Your task to perform on an android device: toggle sleep mode Image 0: 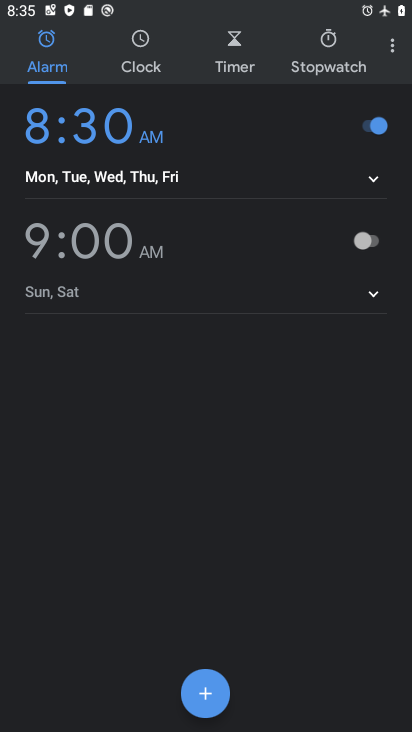
Step 0: press home button
Your task to perform on an android device: toggle sleep mode Image 1: 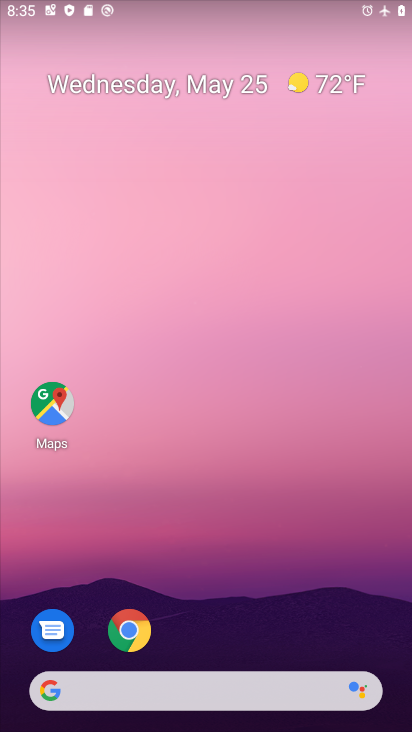
Step 1: drag from (225, 646) to (237, 238)
Your task to perform on an android device: toggle sleep mode Image 2: 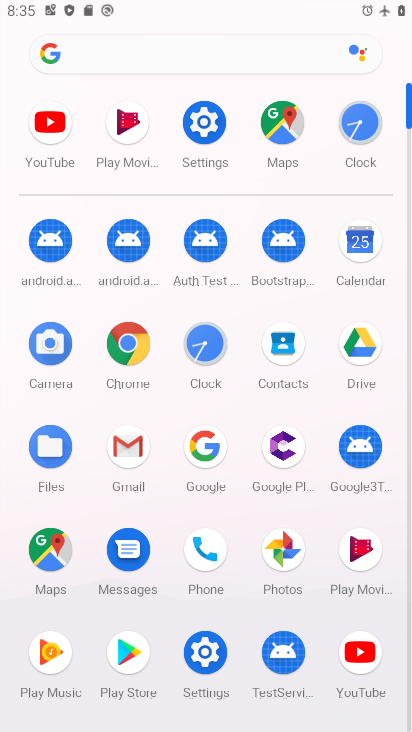
Step 2: click (211, 116)
Your task to perform on an android device: toggle sleep mode Image 3: 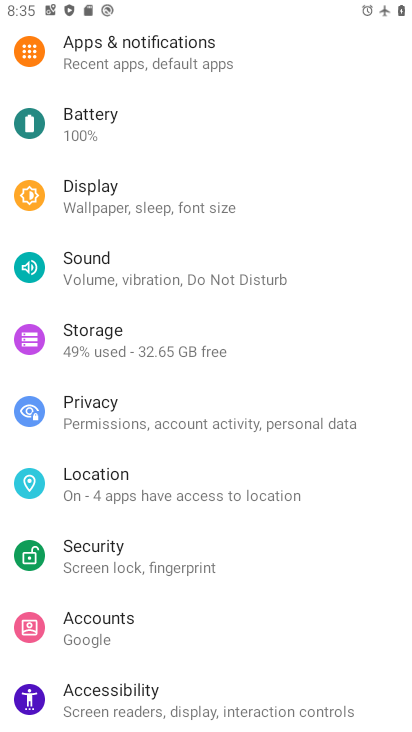
Step 3: click (184, 205)
Your task to perform on an android device: toggle sleep mode Image 4: 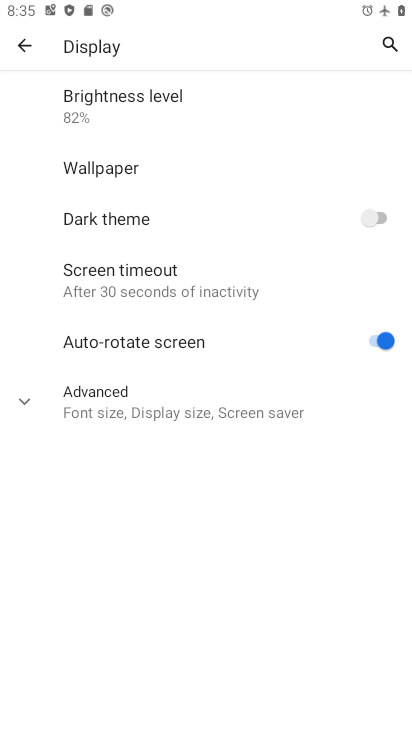
Step 4: click (203, 282)
Your task to perform on an android device: toggle sleep mode Image 5: 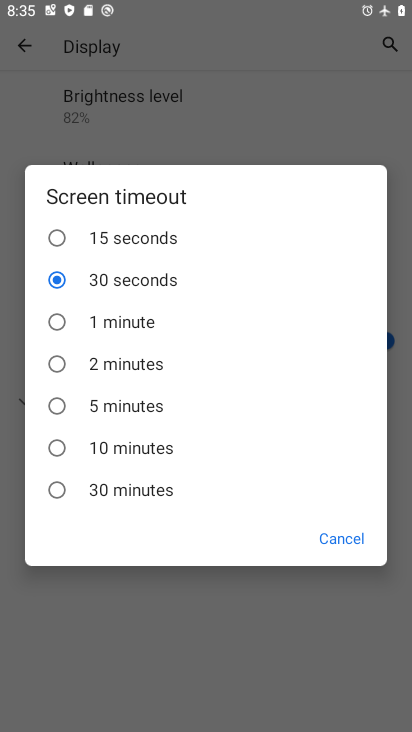
Step 5: click (128, 384)
Your task to perform on an android device: toggle sleep mode Image 6: 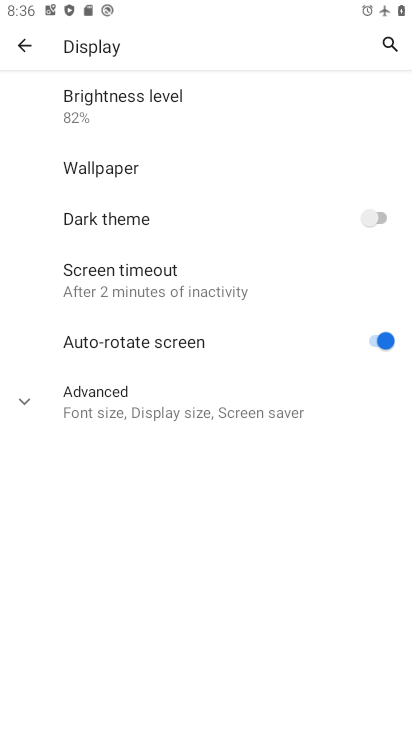
Step 6: task complete